Your task to perform on an android device: Open internet settings Image 0: 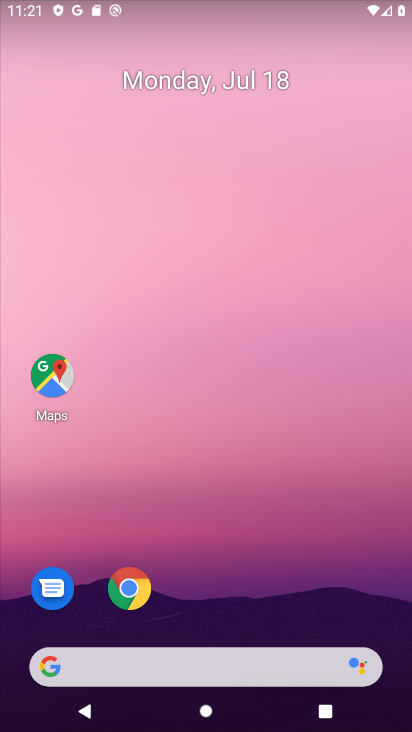
Step 0: drag from (372, 615) to (317, 106)
Your task to perform on an android device: Open internet settings Image 1: 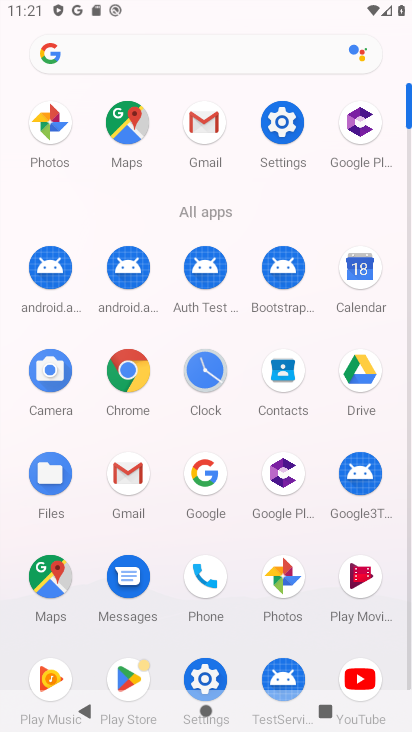
Step 1: click (293, 132)
Your task to perform on an android device: Open internet settings Image 2: 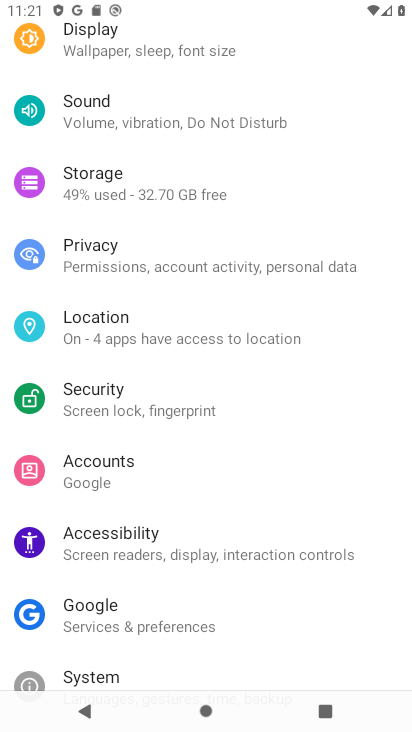
Step 2: drag from (263, 87) to (258, 474)
Your task to perform on an android device: Open internet settings Image 3: 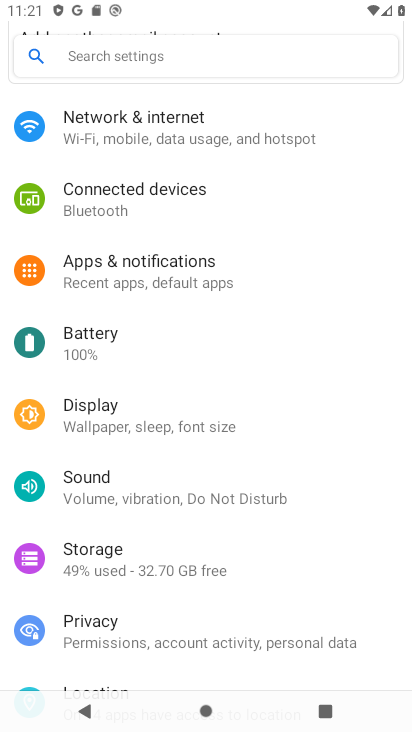
Step 3: click (222, 110)
Your task to perform on an android device: Open internet settings Image 4: 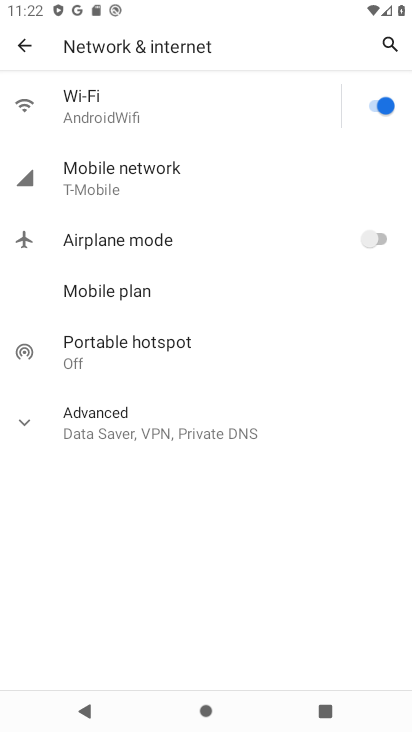
Step 4: task complete